Your task to perform on an android device: open chrome privacy settings Image 0: 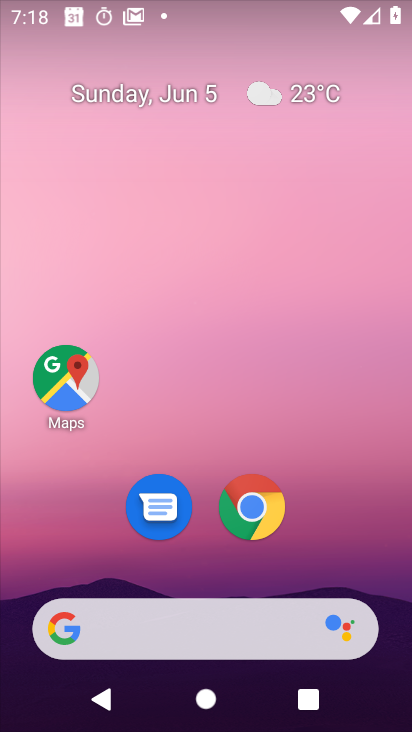
Step 0: drag from (273, 578) to (169, 161)
Your task to perform on an android device: open chrome privacy settings Image 1: 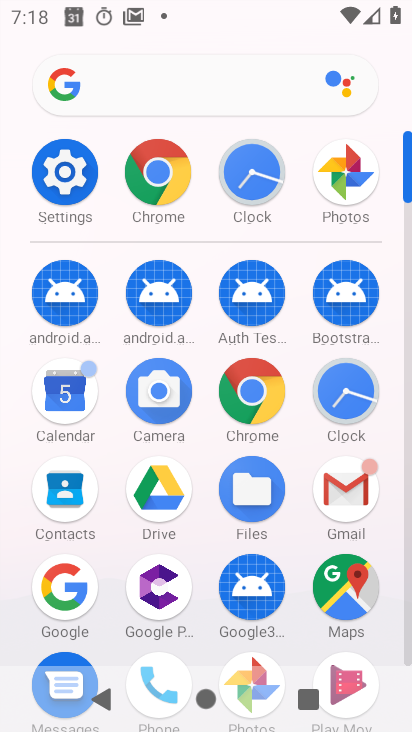
Step 1: click (130, 185)
Your task to perform on an android device: open chrome privacy settings Image 2: 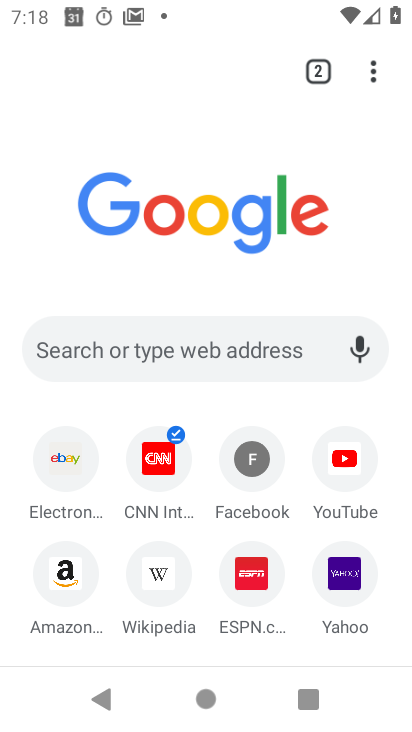
Step 2: click (351, 82)
Your task to perform on an android device: open chrome privacy settings Image 3: 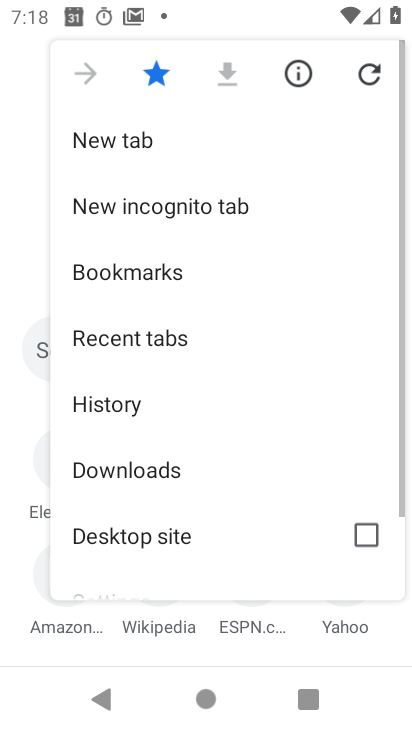
Step 3: drag from (157, 523) to (174, 305)
Your task to perform on an android device: open chrome privacy settings Image 4: 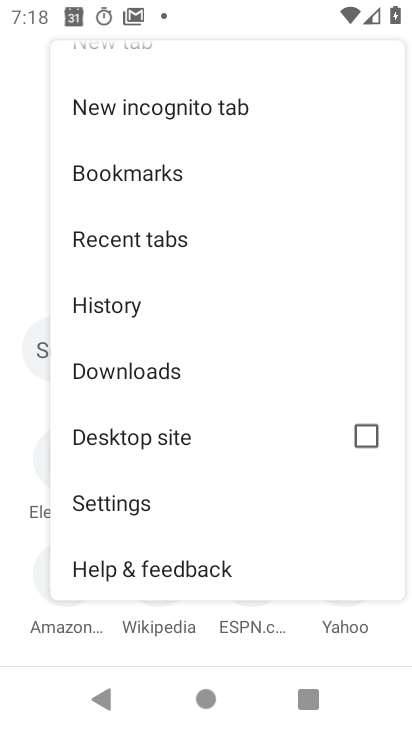
Step 4: click (135, 506)
Your task to perform on an android device: open chrome privacy settings Image 5: 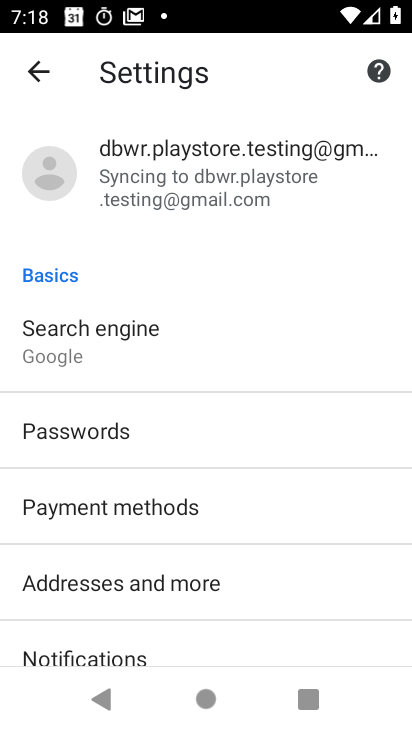
Step 5: drag from (115, 518) to (127, 257)
Your task to perform on an android device: open chrome privacy settings Image 6: 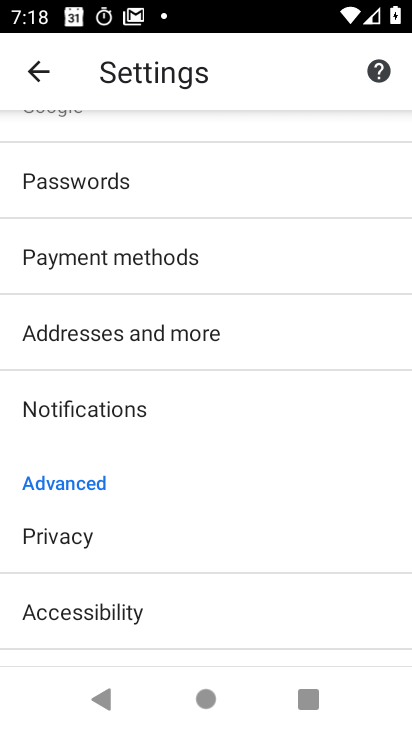
Step 6: click (58, 530)
Your task to perform on an android device: open chrome privacy settings Image 7: 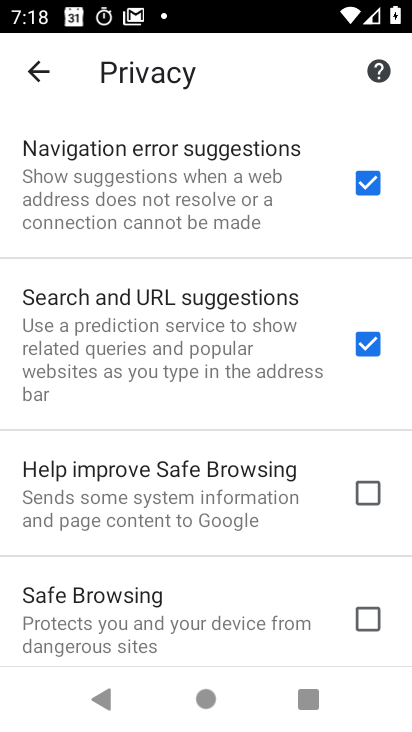
Step 7: task complete